Your task to perform on an android device: Open calendar and show me the third week of next month Image 0: 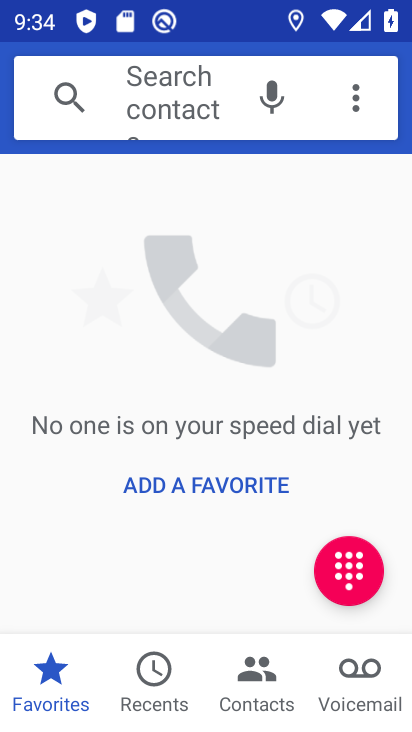
Step 0: press home button
Your task to perform on an android device: Open calendar and show me the third week of next month Image 1: 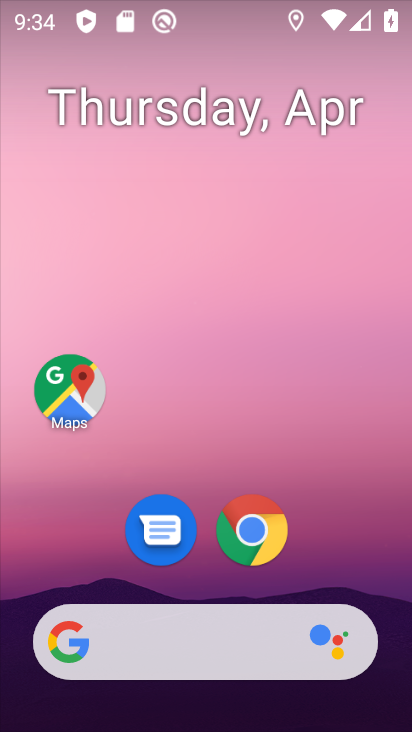
Step 1: drag from (370, 572) to (293, 134)
Your task to perform on an android device: Open calendar and show me the third week of next month Image 2: 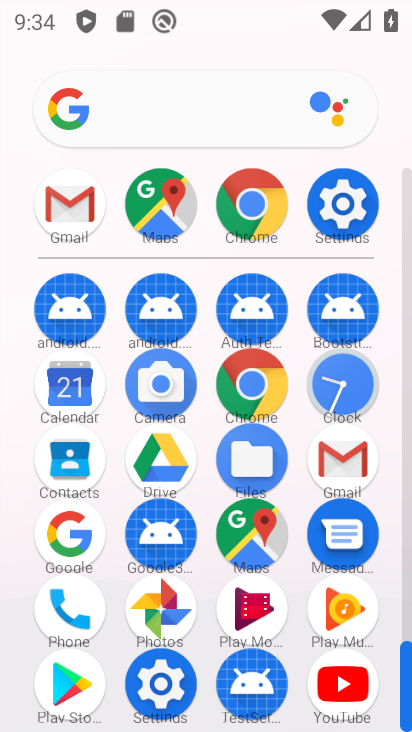
Step 2: click (76, 405)
Your task to perform on an android device: Open calendar and show me the third week of next month Image 3: 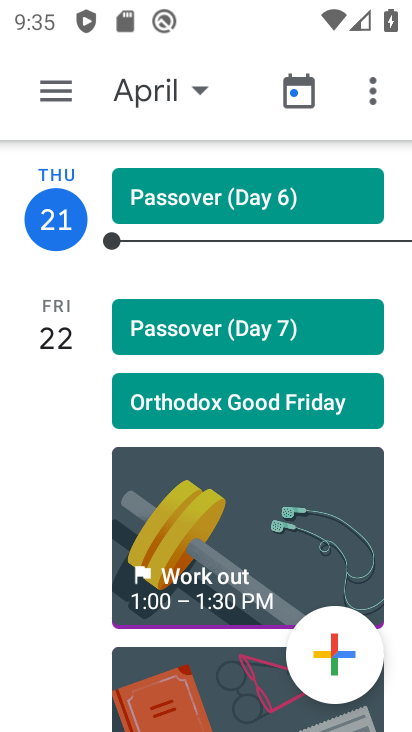
Step 3: click (145, 83)
Your task to perform on an android device: Open calendar and show me the third week of next month Image 4: 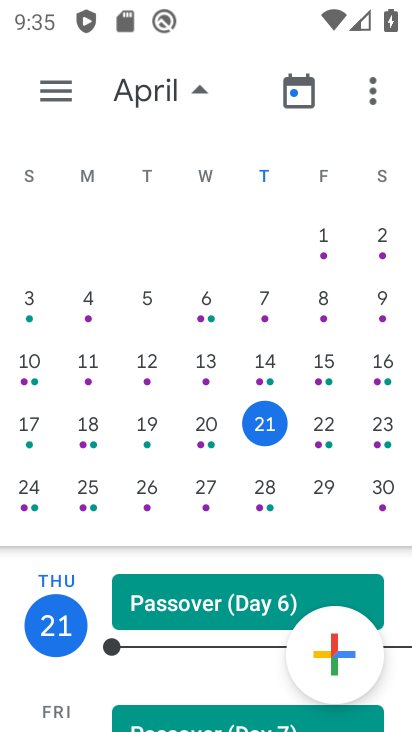
Step 4: drag from (382, 399) to (0, 353)
Your task to perform on an android device: Open calendar and show me the third week of next month Image 5: 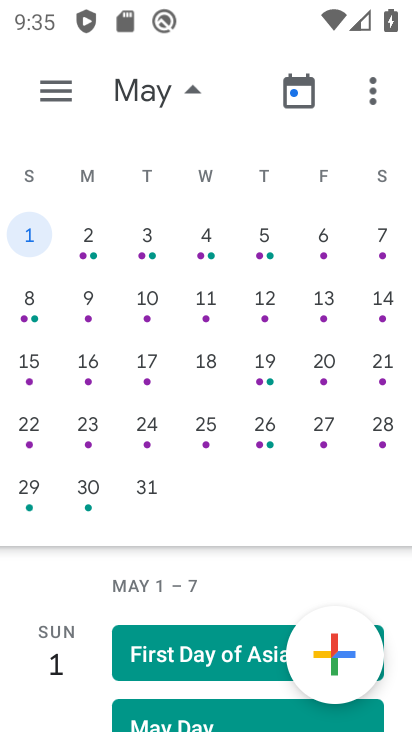
Step 5: click (263, 358)
Your task to perform on an android device: Open calendar and show me the third week of next month Image 6: 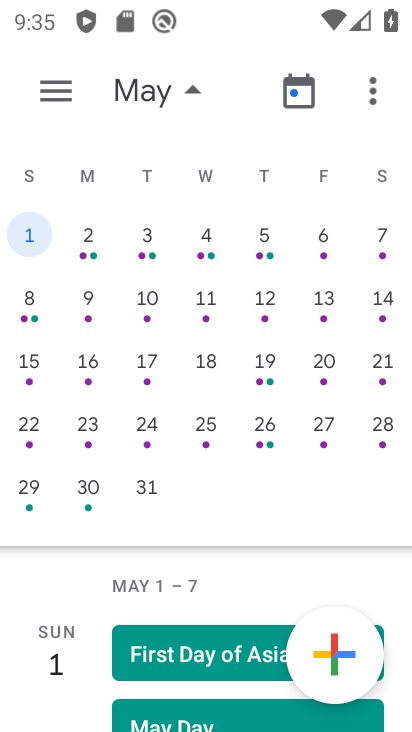
Step 6: click (268, 370)
Your task to perform on an android device: Open calendar and show me the third week of next month Image 7: 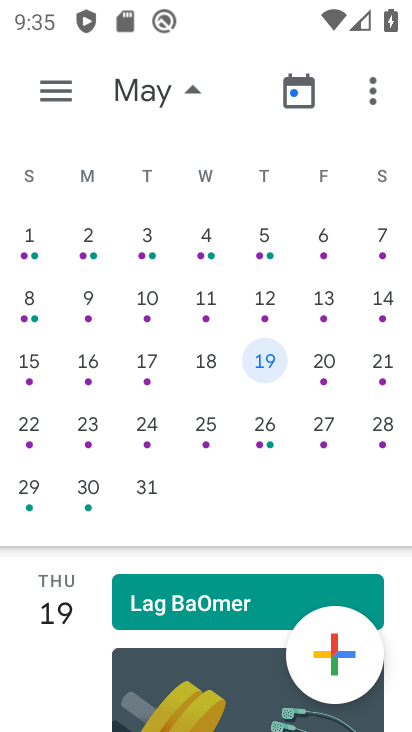
Step 7: task complete